Your task to perform on an android device: choose inbox layout in the gmail app Image 0: 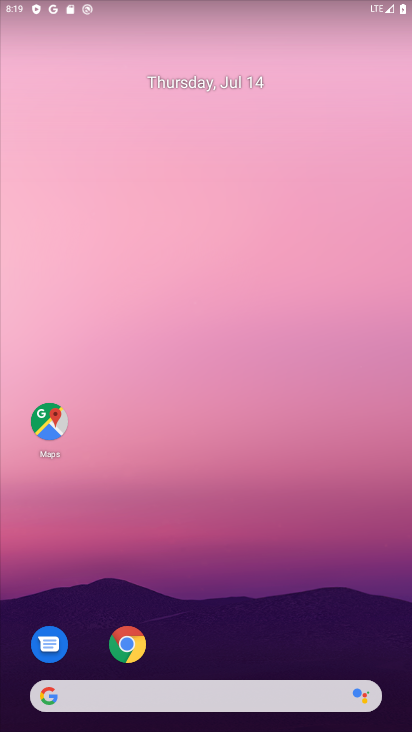
Step 0: drag from (240, 651) to (297, 112)
Your task to perform on an android device: choose inbox layout in the gmail app Image 1: 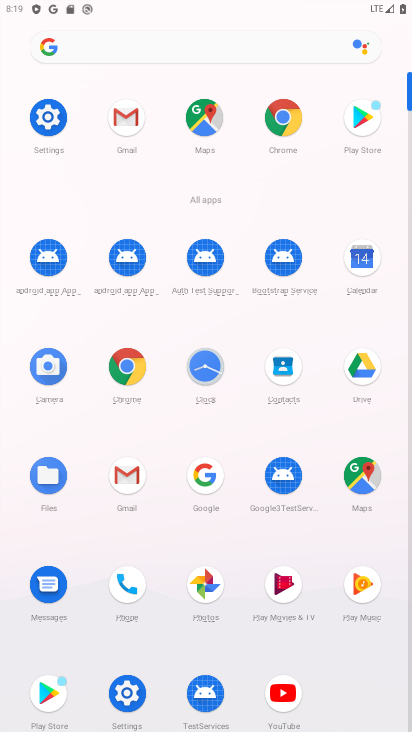
Step 1: click (103, 455)
Your task to perform on an android device: choose inbox layout in the gmail app Image 2: 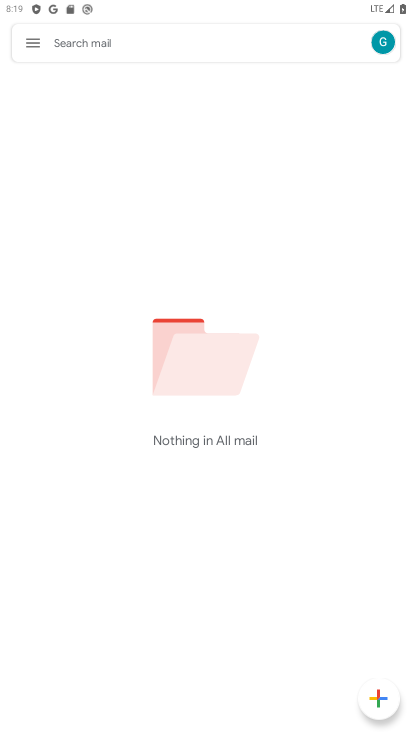
Step 2: click (26, 38)
Your task to perform on an android device: choose inbox layout in the gmail app Image 3: 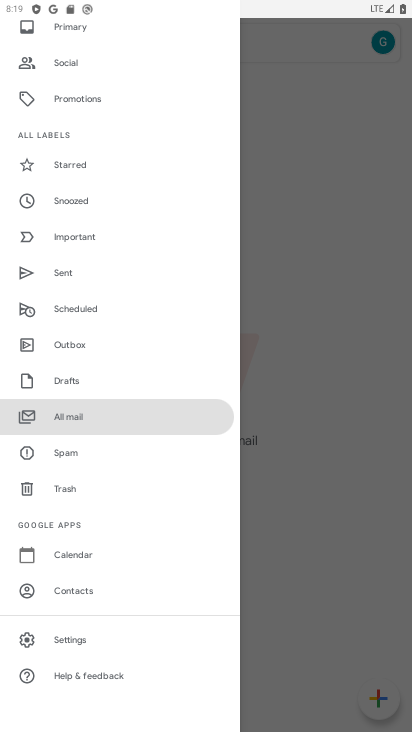
Step 3: click (73, 634)
Your task to perform on an android device: choose inbox layout in the gmail app Image 4: 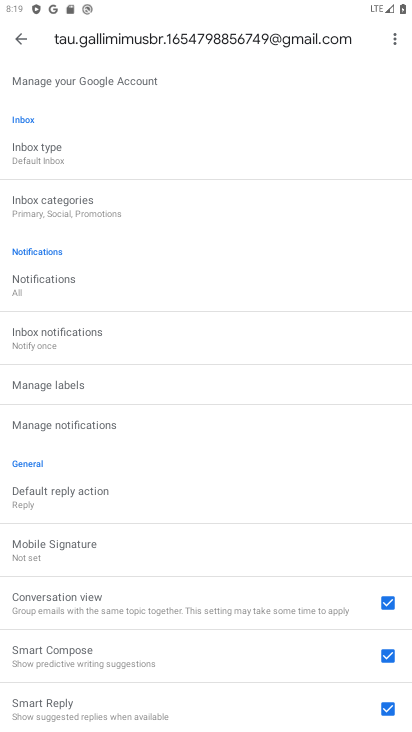
Step 4: click (99, 142)
Your task to perform on an android device: choose inbox layout in the gmail app Image 5: 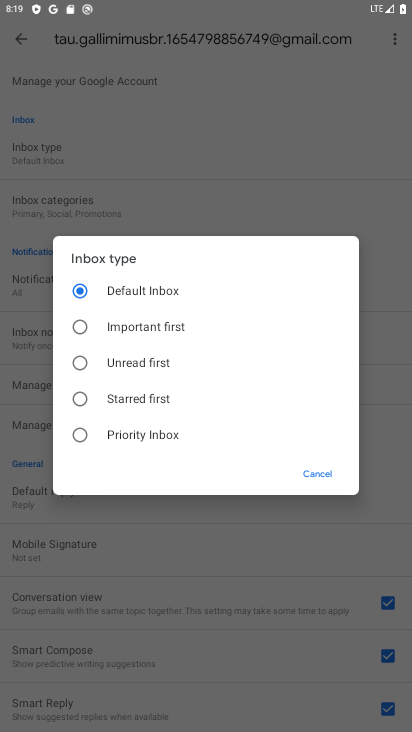
Step 5: click (151, 433)
Your task to perform on an android device: choose inbox layout in the gmail app Image 6: 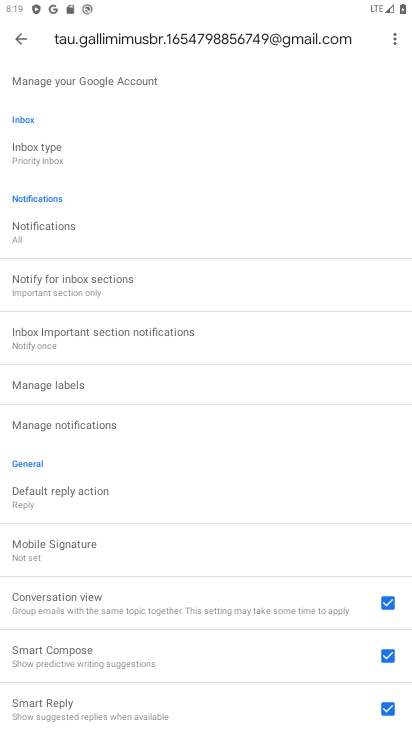
Step 6: task complete